Your task to perform on an android device: turn off wifi Image 0: 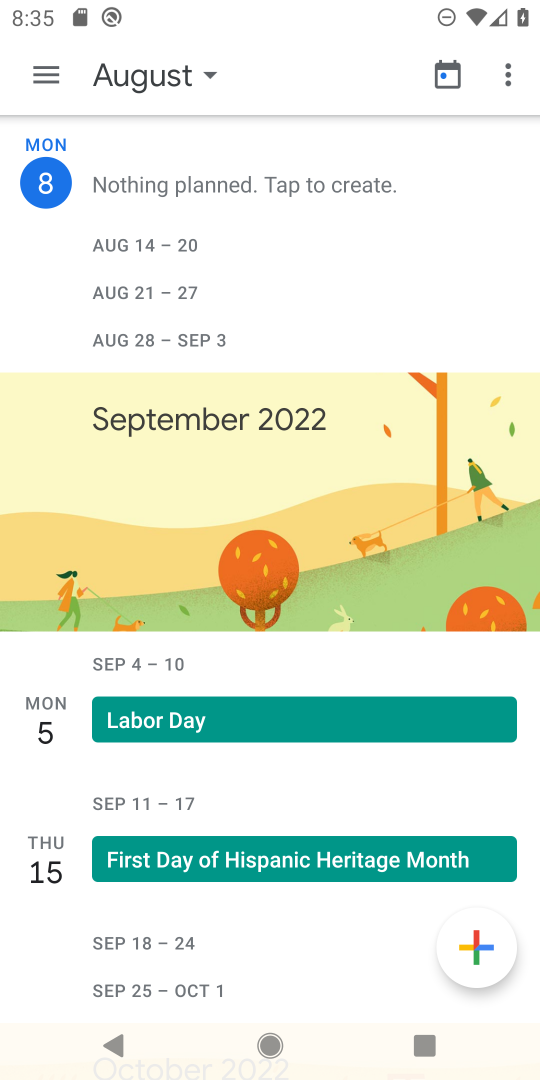
Step 0: drag from (236, 21) to (217, 956)
Your task to perform on an android device: turn off wifi Image 1: 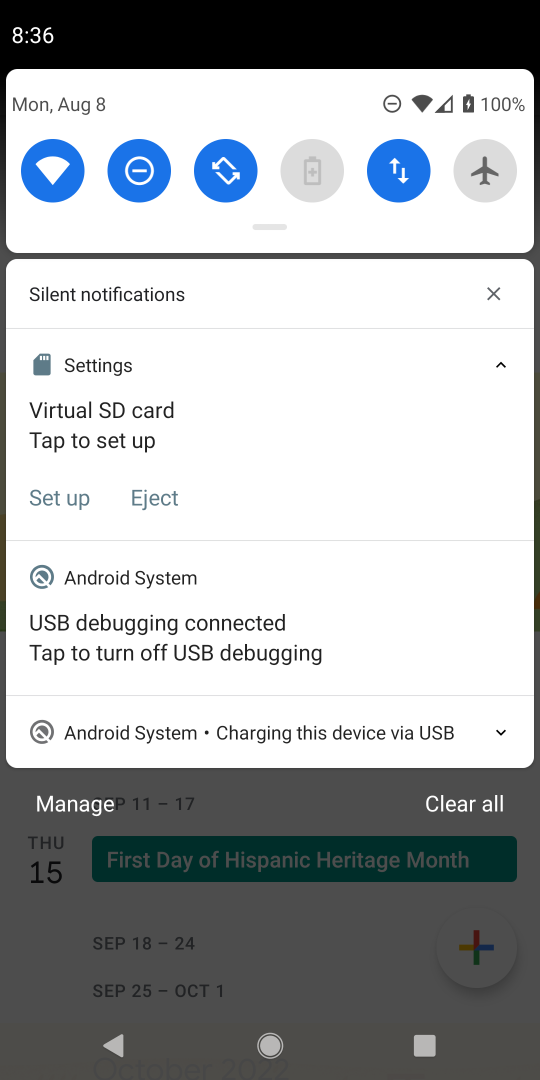
Step 1: click (66, 188)
Your task to perform on an android device: turn off wifi Image 2: 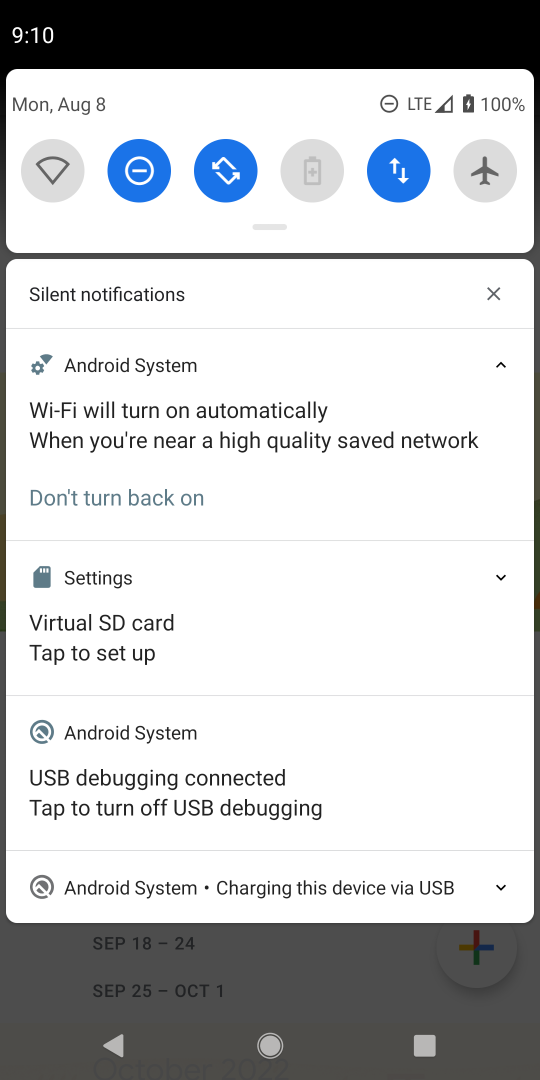
Step 2: click (382, 969)
Your task to perform on an android device: turn off wifi Image 3: 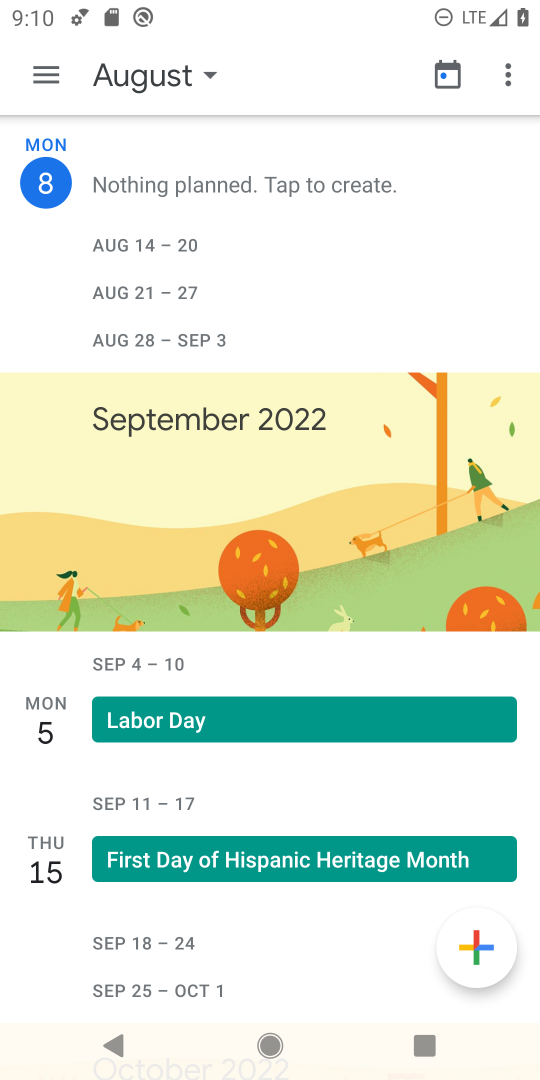
Step 3: click (260, 1036)
Your task to perform on an android device: turn off wifi Image 4: 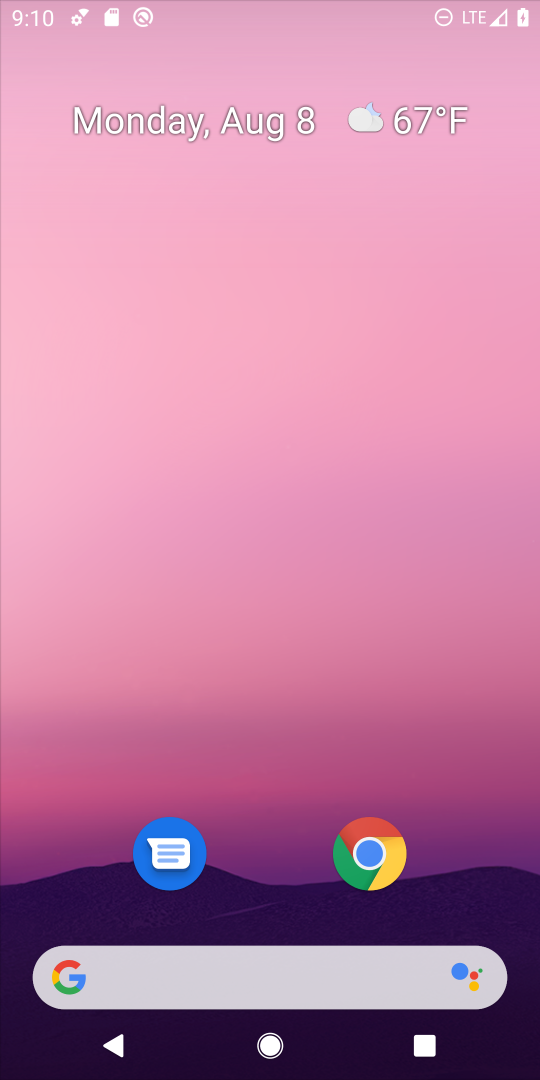
Step 4: task complete